Your task to perform on an android device: What's on my calendar today? Image 0: 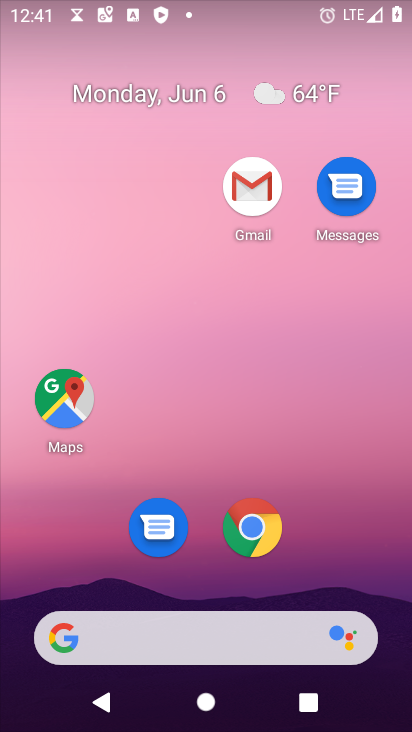
Step 0: click (153, 91)
Your task to perform on an android device: What's on my calendar today? Image 1: 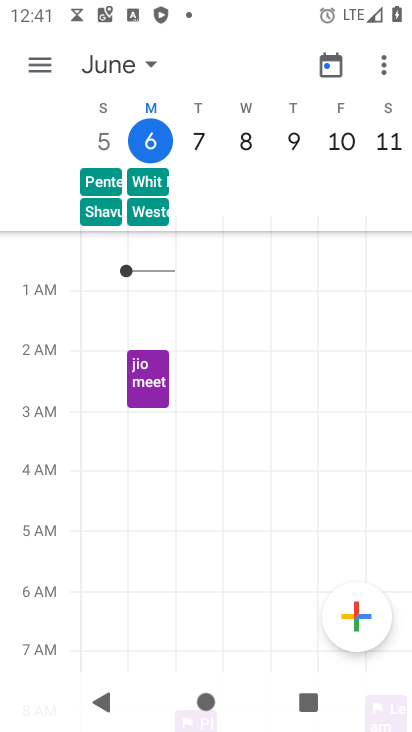
Step 1: click (31, 65)
Your task to perform on an android device: What's on my calendar today? Image 2: 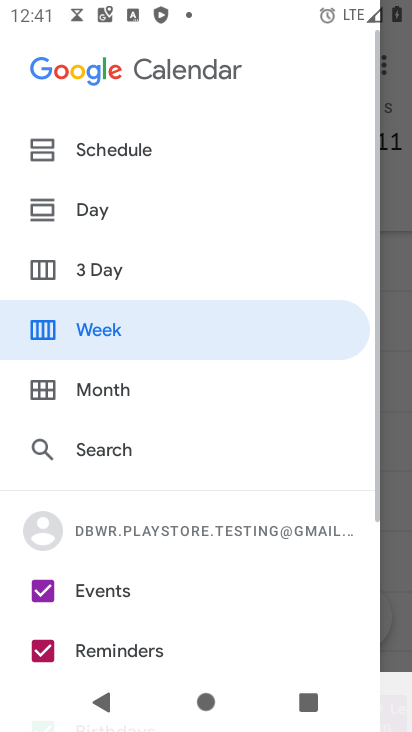
Step 2: click (87, 151)
Your task to perform on an android device: What's on my calendar today? Image 3: 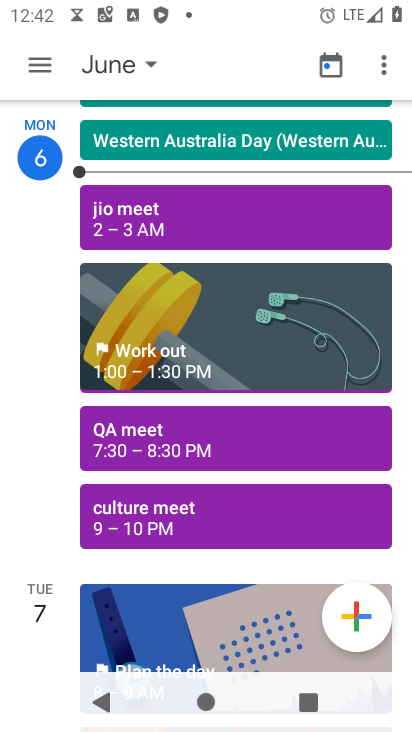
Step 3: task complete